Your task to perform on an android device: Open my contact list Image 0: 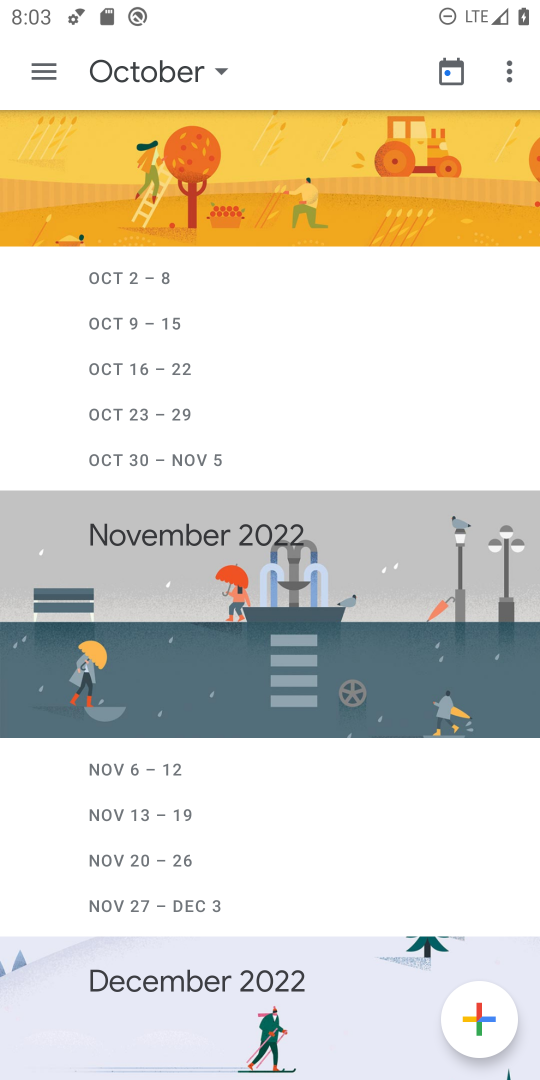
Step 0: press home button
Your task to perform on an android device: Open my contact list Image 1: 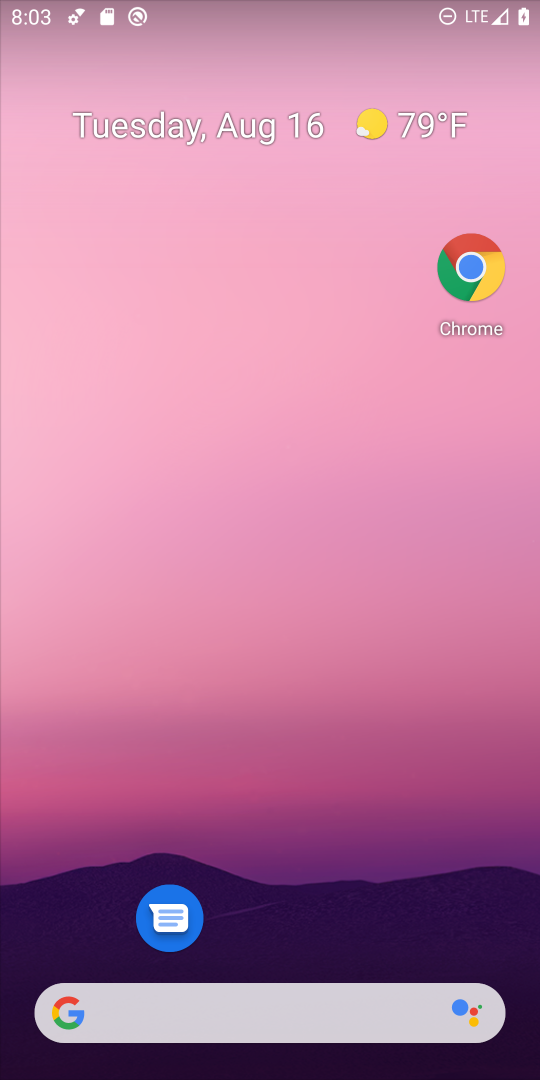
Step 1: drag from (325, 911) to (400, 0)
Your task to perform on an android device: Open my contact list Image 2: 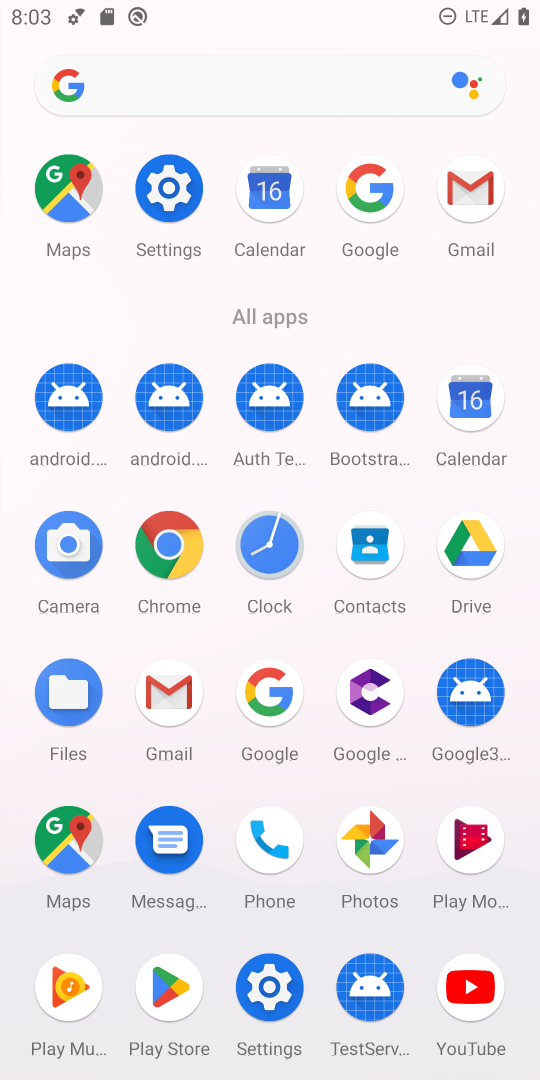
Step 2: click (379, 550)
Your task to perform on an android device: Open my contact list Image 3: 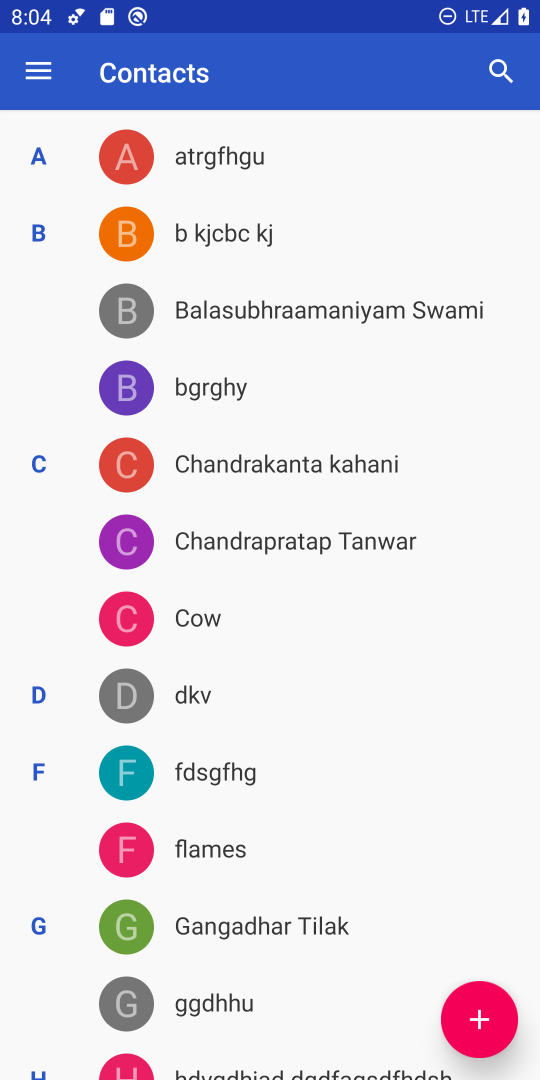
Step 3: task complete